Your task to perform on an android device: star an email in the gmail app Image 0: 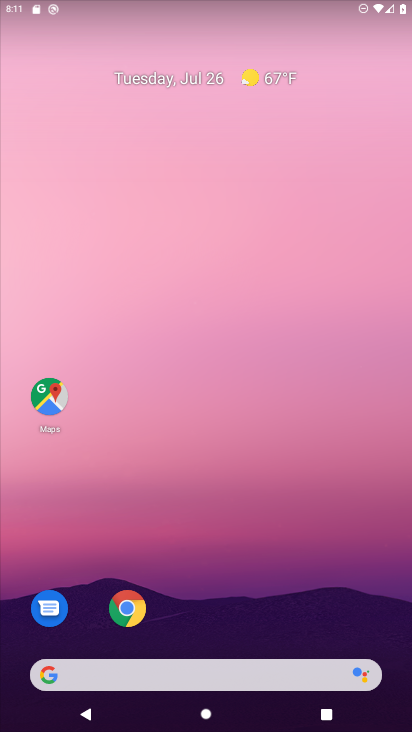
Step 0: drag from (212, 637) to (285, 52)
Your task to perform on an android device: star an email in the gmail app Image 1: 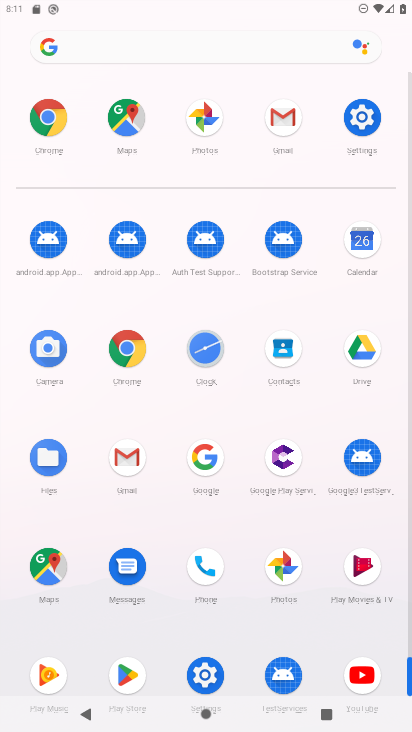
Step 1: click (136, 467)
Your task to perform on an android device: star an email in the gmail app Image 2: 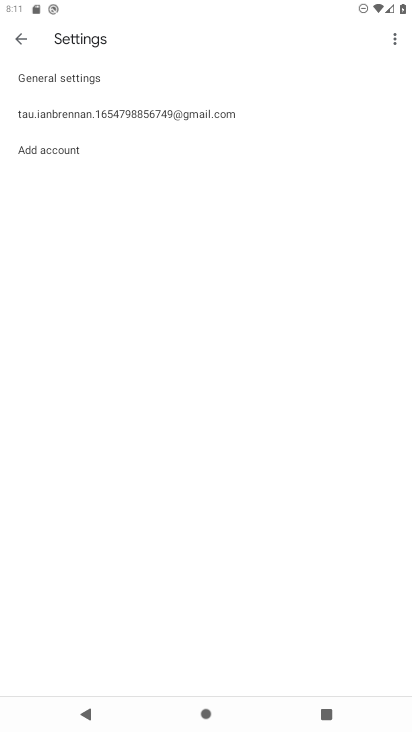
Step 2: click (25, 39)
Your task to perform on an android device: star an email in the gmail app Image 3: 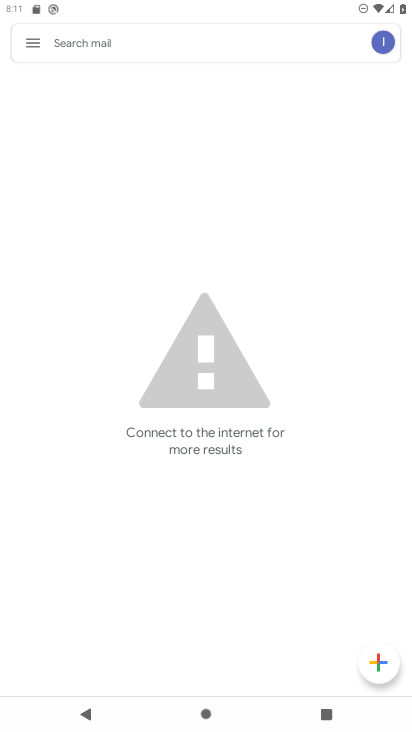
Step 3: click (25, 42)
Your task to perform on an android device: star an email in the gmail app Image 4: 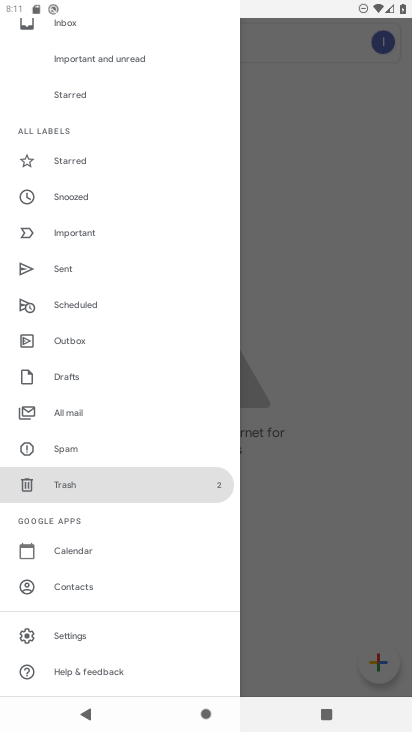
Step 4: click (317, 188)
Your task to perform on an android device: star an email in the gmail app Image 5: 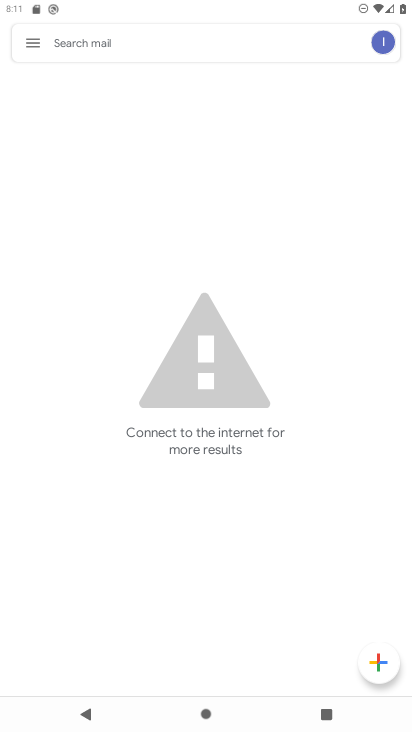
Step 5: drag from (283, 139) to (212, 730)
Your task to perform on an android device: star an email in the gmail app Image 6: 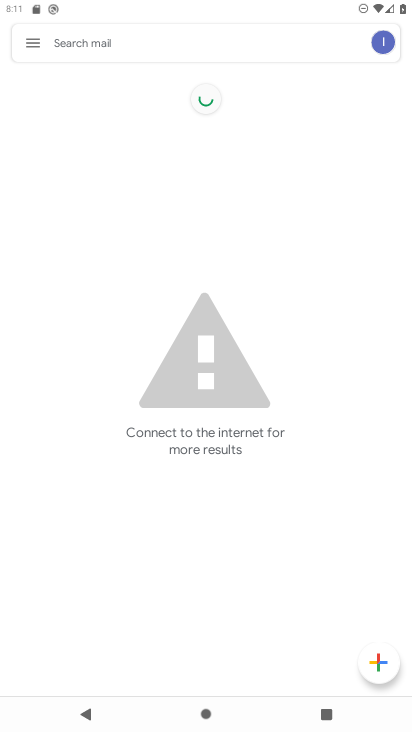
Step 6: click (40, 40)
Your task to perform on an android device: star an email in the gmail app Image 7: 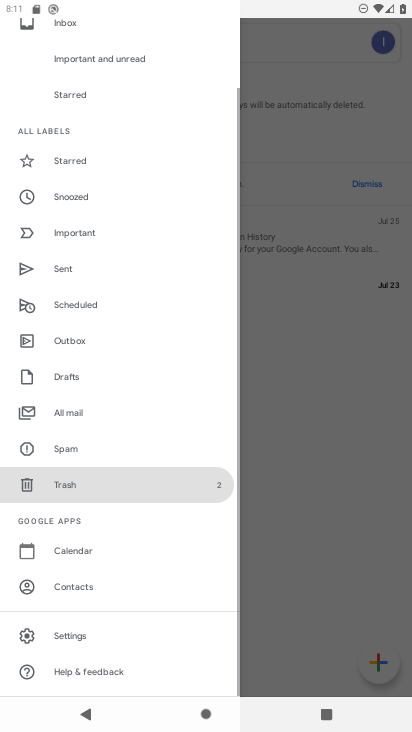
Step 7: click (78, 417)
Your task to perform on an android device: star an email in the gmail app Image 8: 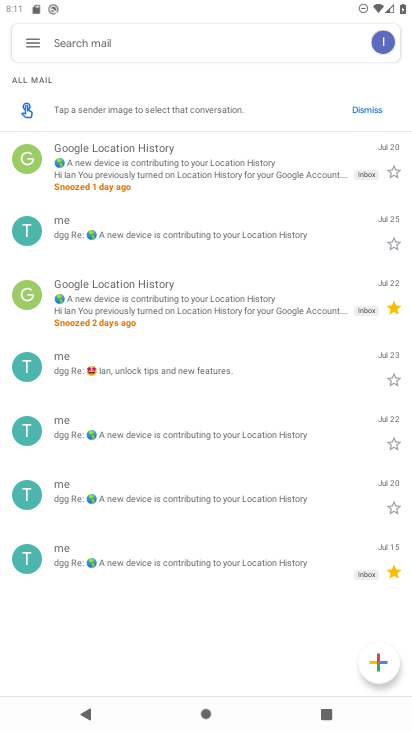
Step 8: click (387, 165)
Your task to perform on an android device: star an email in the gmail app Image 9: 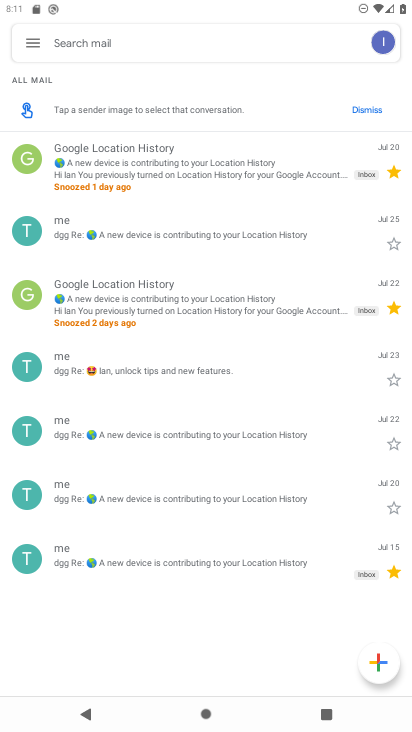
Step 9: task complete